Your task to perform on an android device: turn off priority inbox in the gmail app Image 0: 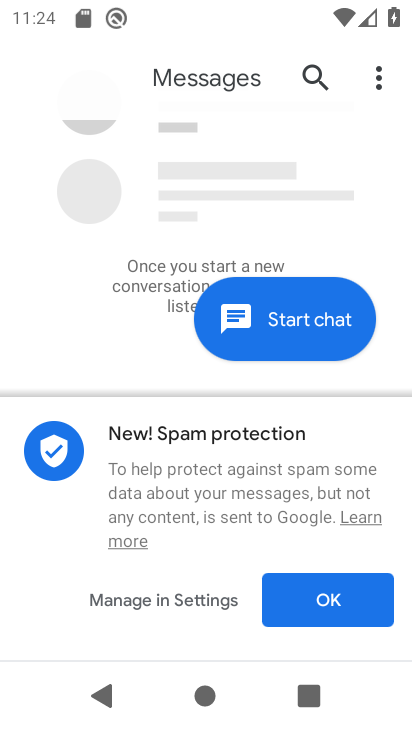
Step 0: press home button
Your task to perform on an android device: turn off priority inbox in the gmail app Image 1: 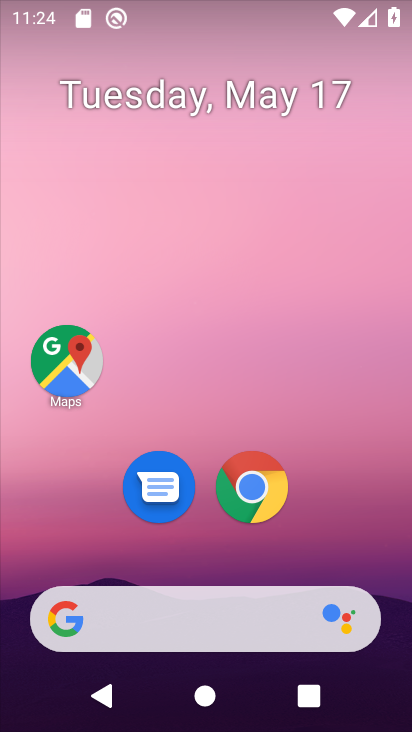
Step 1: drag from (314, 558) to (258, 58)
Your task to perform on an android device: turn off priority inbox in the gmail app Image 2: 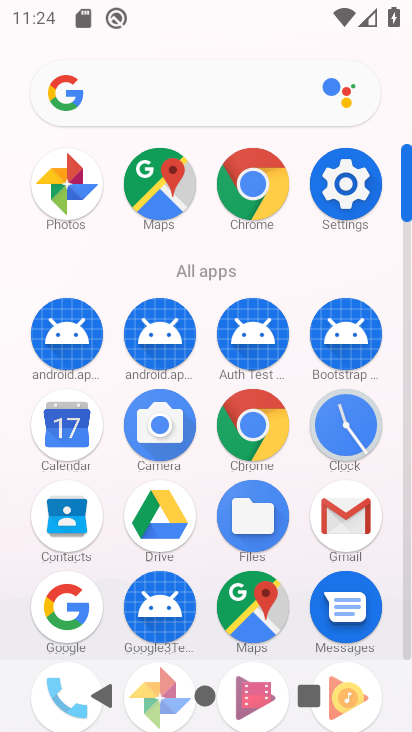
Step 2: click (328, 516)
Your task to perform on an android device: turn off priority inbox in the gmail app Image 3: 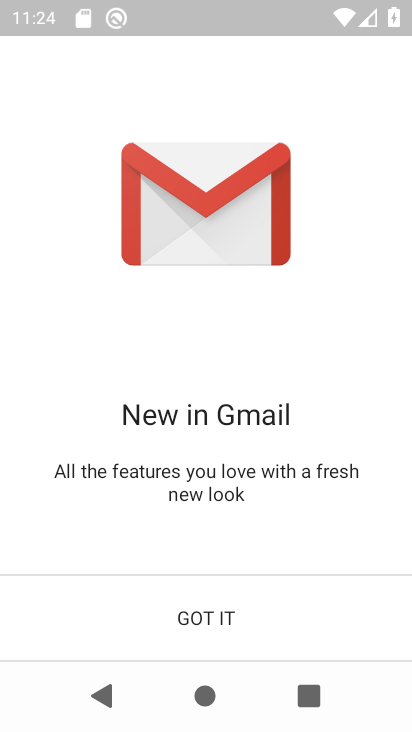
Step 3: click (224, 624)
Your task to perform on an android device: turn off priority inbox in the gmail app Image 4: 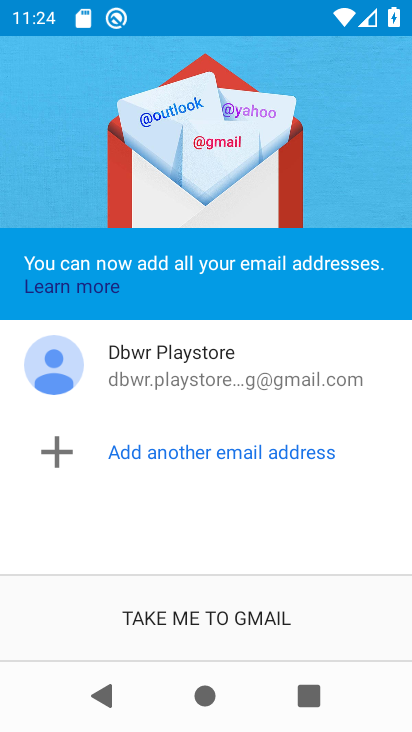
Step 4: click (224, 624)
Your task to perform on an android device: turn off priority inbox in the gmail app Image 5: 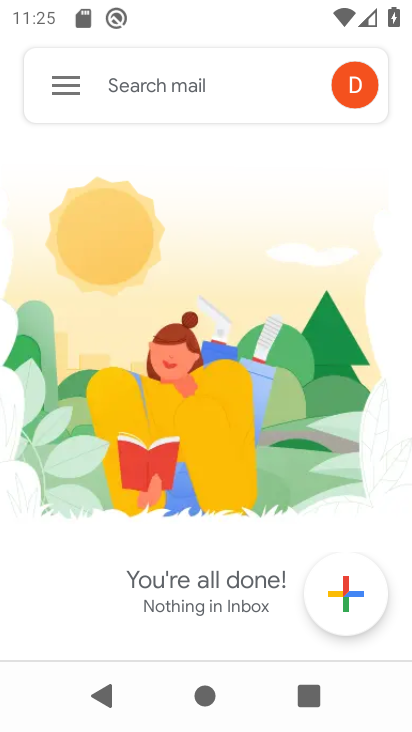
Step 5: click (70, 90)
Your task to perform on an android device: turn off priority inbox in the gmail app Image 6: 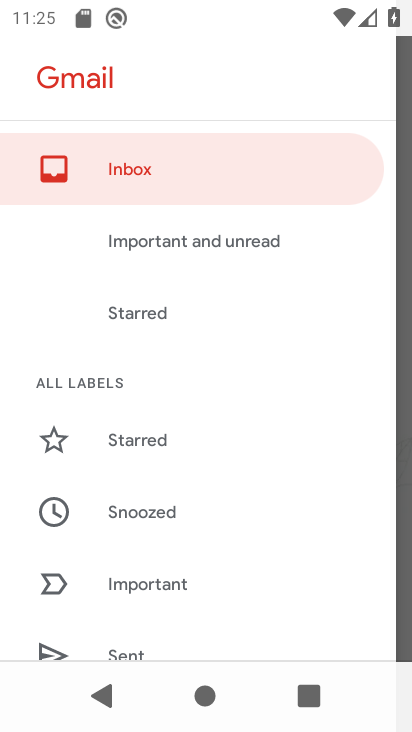
Step 6: click (70, 90)
Your task to perform on an android device: turn off priority inbox in the gmail app Image 7: 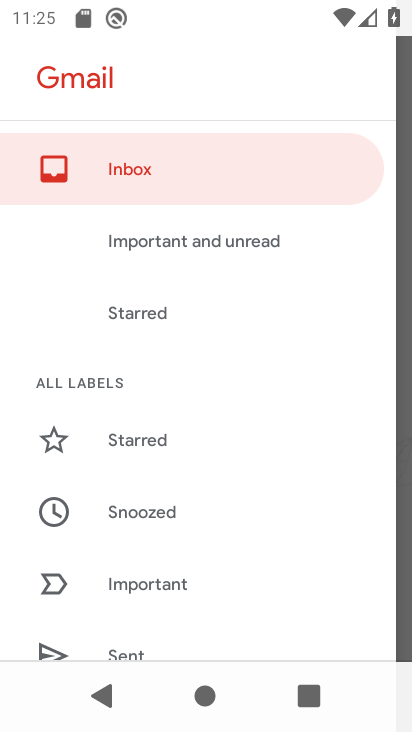
Step 7: drag from (205, 616) to (115, 90)
Your task to perform on an android device: turn off priority inbox in the gmail app Image 8: 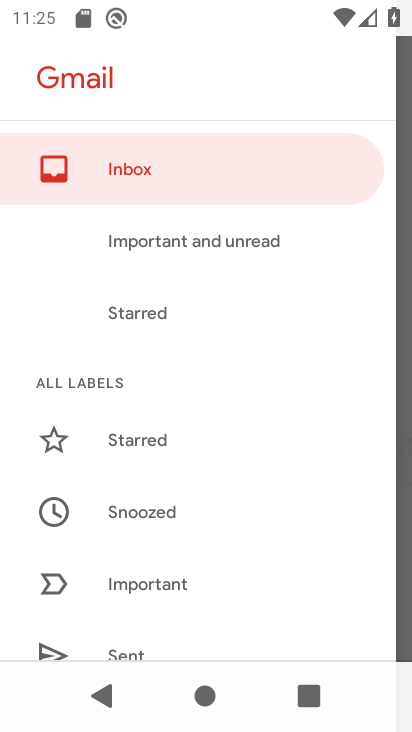
Step 8: drag from (227, 629) to (157, 112)
Your task to perform on an android device: turn off priority inbox in the gmail app Image 9: 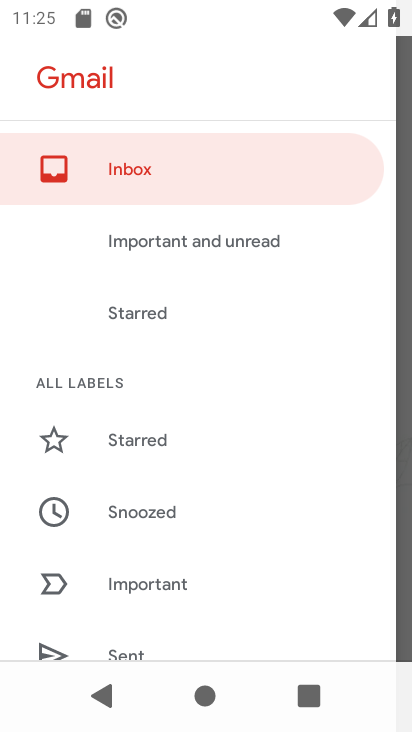
Step 9: drag from (199, 621) to (180, 125)
Your task to perform on an android device: turn off priority inbox in the gmail app Image 10: 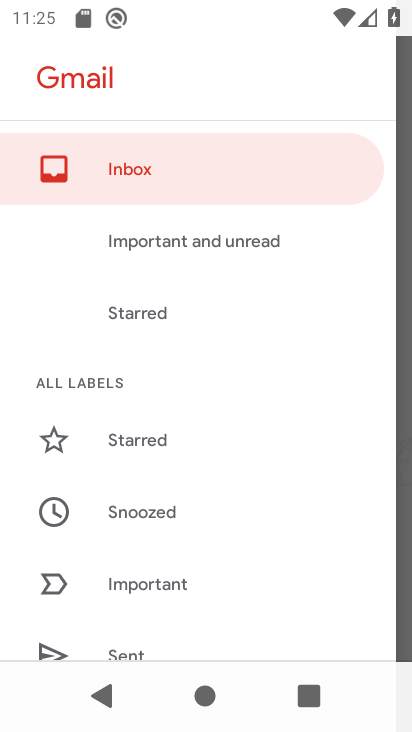
Step 10: drag from (338, 621) to (307, 137)
Your task to perform on an android device: turn off priority inbox in the gmail app Image 11: 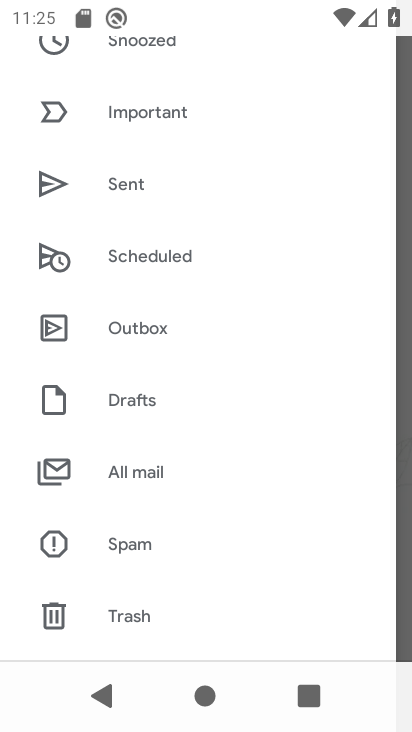
Step 11: drag from (321, 580) to (278, 157)
Your task to perform on an android device: turn off priority inbox in the gmail app Image 12: 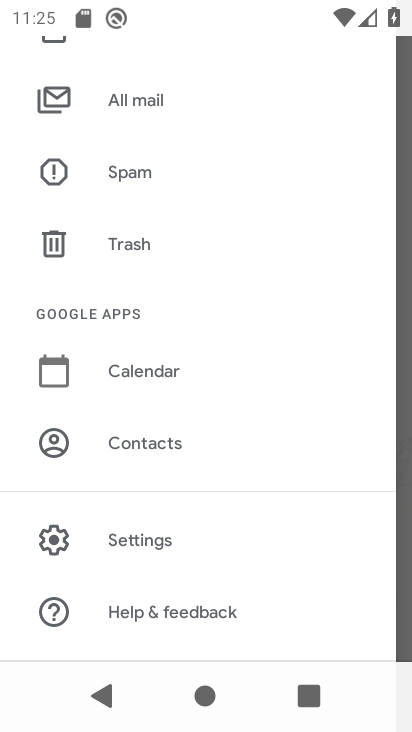
Step 12: click (215, 552)
Your task to perform on an android device: turn off priority inbox in the gmail app Image 13: 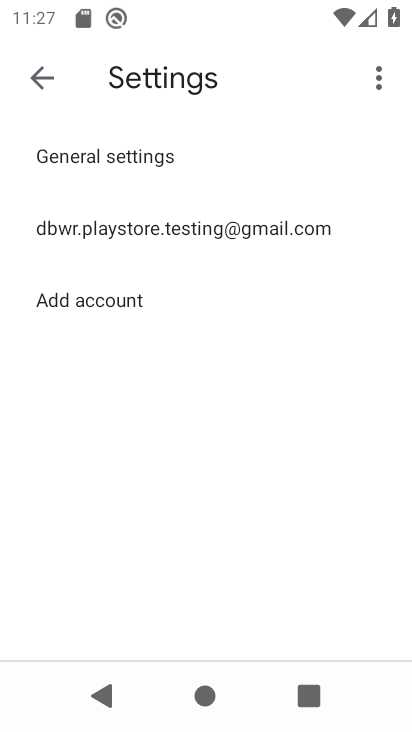
Step 13: click (275, 234)
Your task to perform on an android device: turn off priority inbox in the gmail app Image 14: 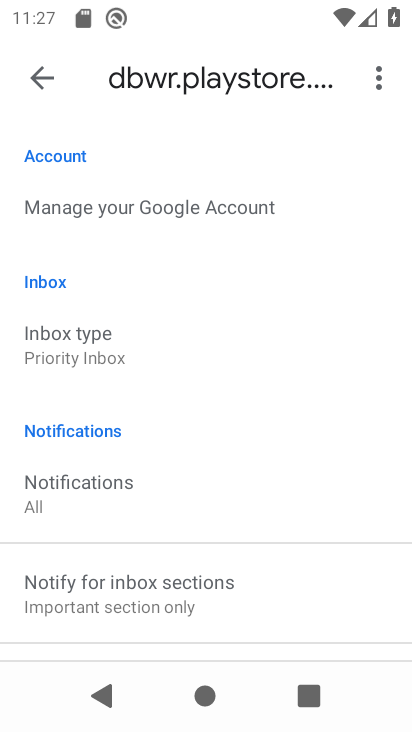
Step 14: drag from (369, 653) to (334, 549)
Your task to perform on an android device: turn off priority inbox in the gmail app Image 15: 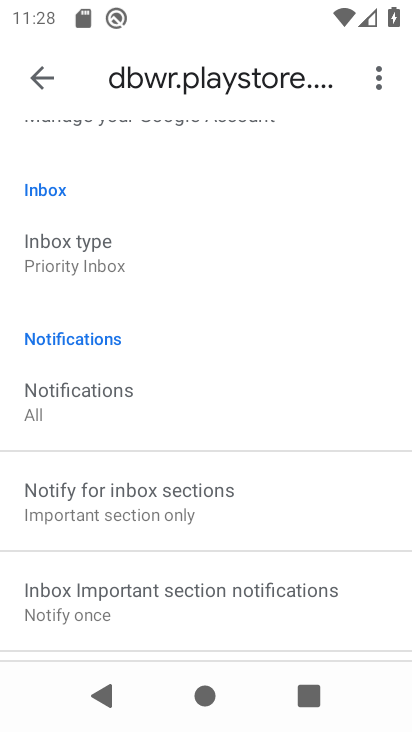
Step 15: click (160, 254)
Your task to perform on an android device: turn off priority inbox in the gmail app Image 16: 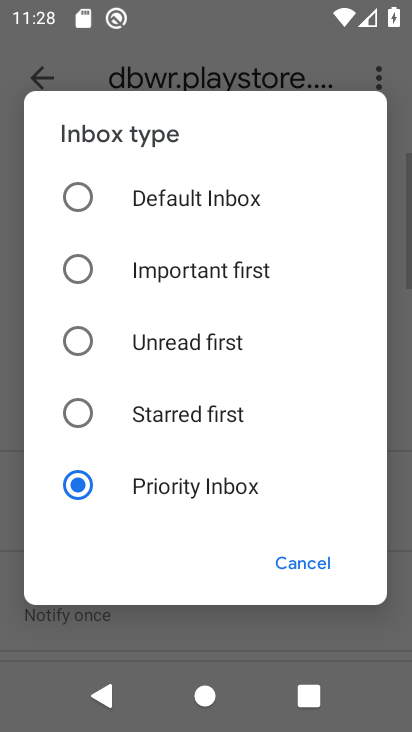
Step 16: click (182, 201)
Your task to perform on an android device: turn off priority inbox in the gmail app Image 17: 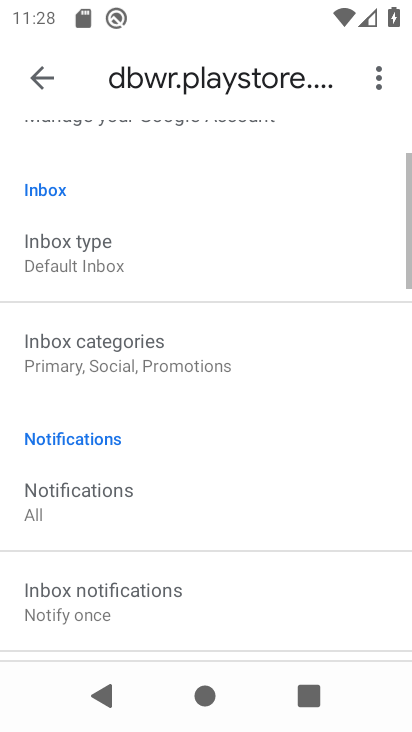
Step 17: task complete